Your task to perform on an android device: Go to Reddit.com Image 0: 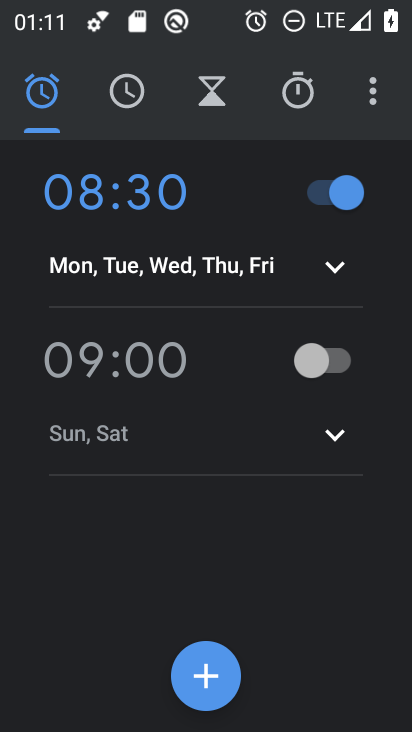
Step 0: press home button
Your task to perform on an android device: Go to Reddit.com Image 1: 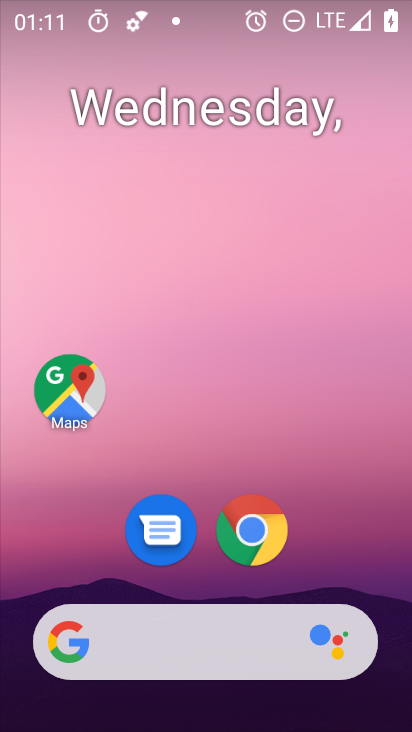
Step 1: drag from (204, 532) to (347, 2)
Your task to perform on an android device: Go to Reddit.com Image 2: 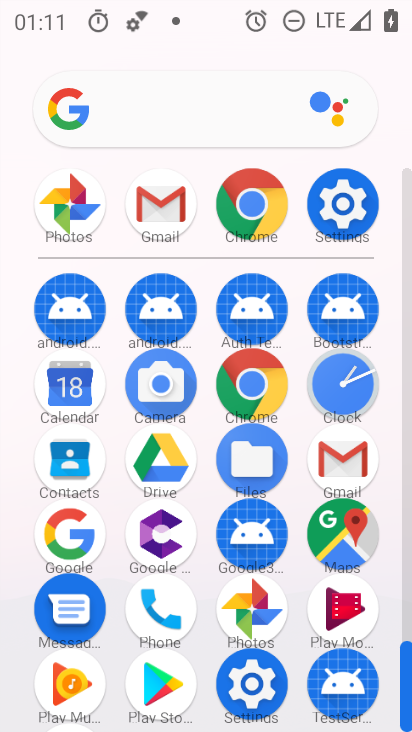
Step 2: click (242, 392)
Your task to perform on an android device: Go to Reddit.com Image 3: 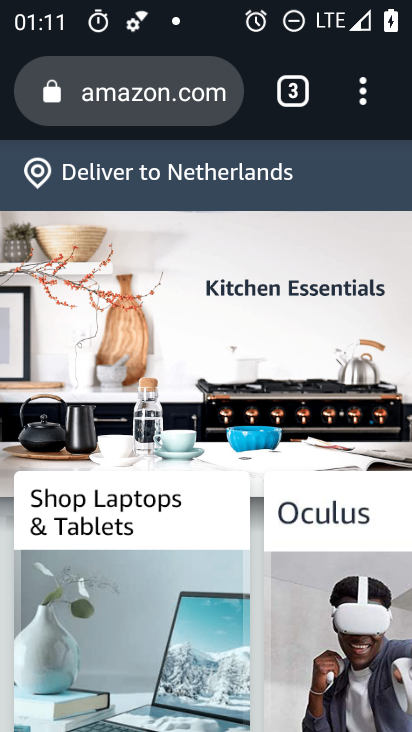
Step 3: click (178, 100)
Your task to perform on an android device: Go to Reddit.com Image 4: 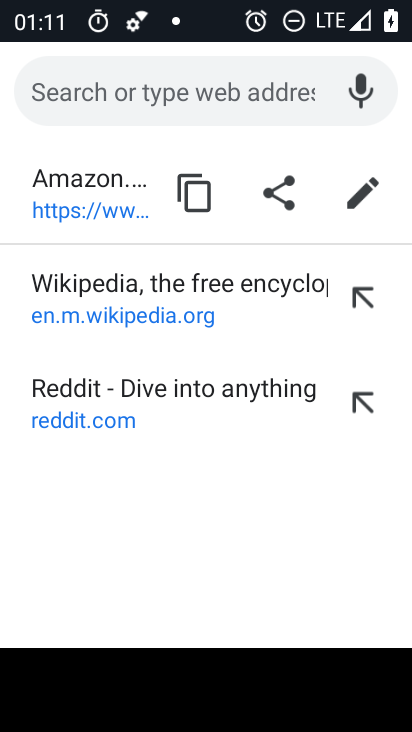
Step 4: click (270, 412)
Your task to perform on an android device: Go to Reddit.com Image 5: 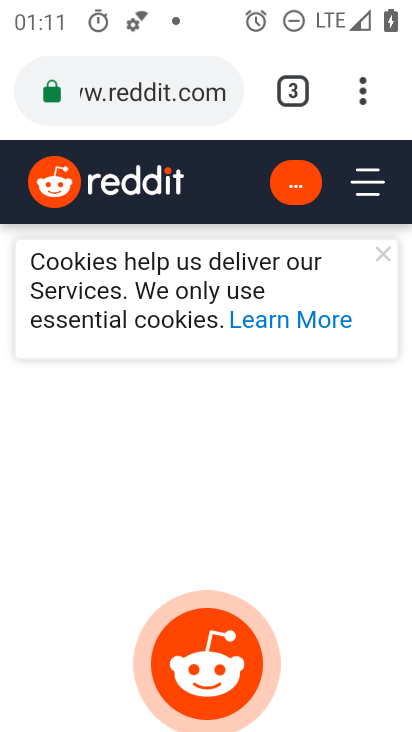
Step 5: task complete